Your task to perform on an android device: Open the calendar app, open the side menu, and click the "Day" option Image 0: 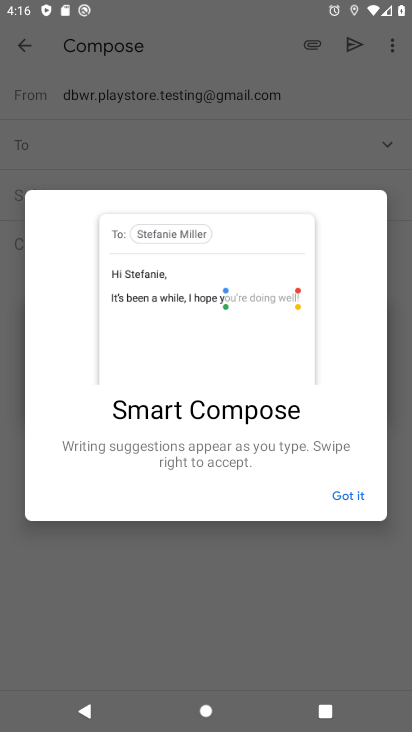
Step 0: press home button
Your task to perform on an android device: Open the calendar app, open the side menu, and click the "Day" option Image 1: 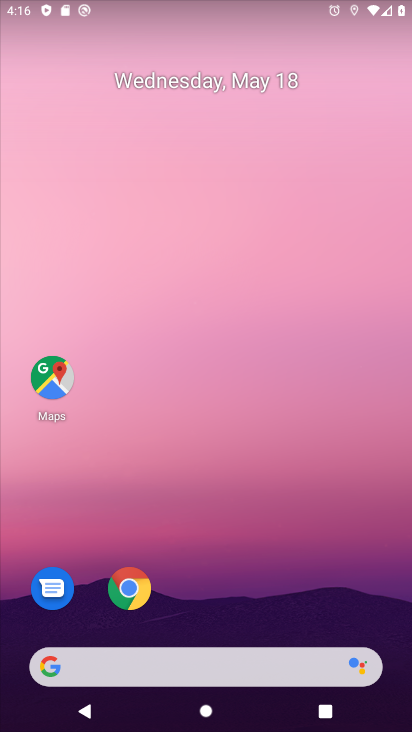
Step 1: drag from (299, 563) to (290, 61)
Your task to perform on an android device: Open the calendar app, open the side menu, and click the "Day" option Image 2: 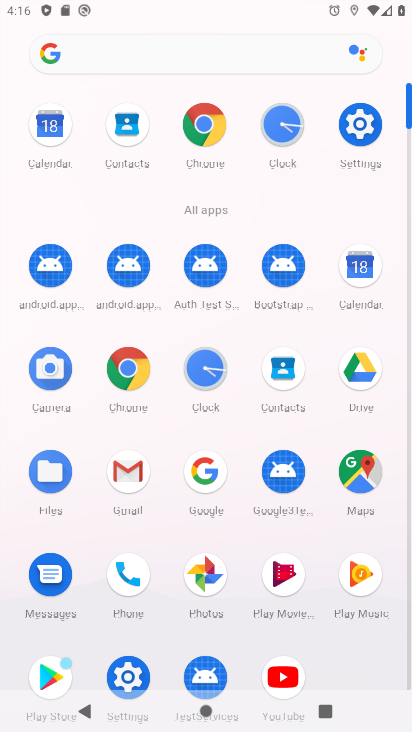
Step 2: click (358, 266)
Your task to perform on an android device: Open the calendar app, open the side menu, and click the "Day" option Image 3: 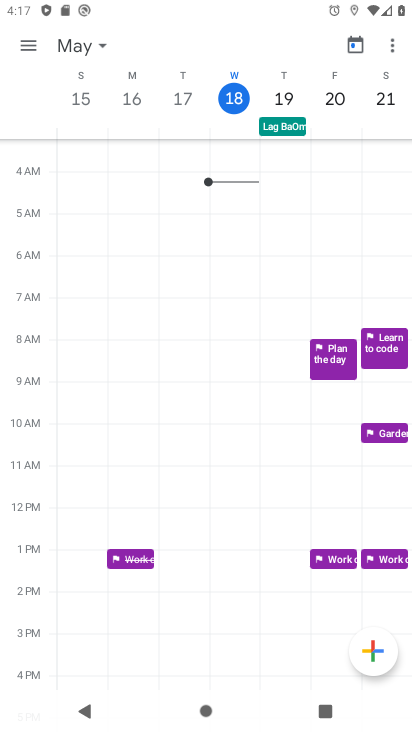
Step 3: click (37, 45)
Your task to perform on an android device: Open the calendar app, open the side menu, and click the "Day" option Image 4: 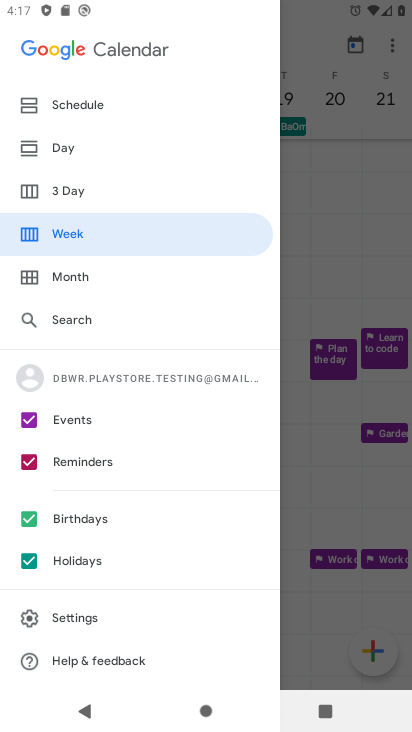
Step 4: click (82, 154)
Your task to perform on an android device: Open the calendar app, open the side menu, and click the "Day" option Image 5: 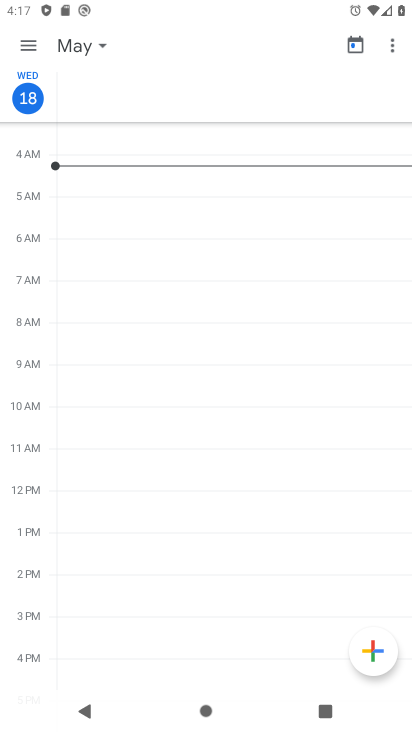
Step 5: task complete